Your task to perform on an android device: turn on javascript in the chrome app Image 0: 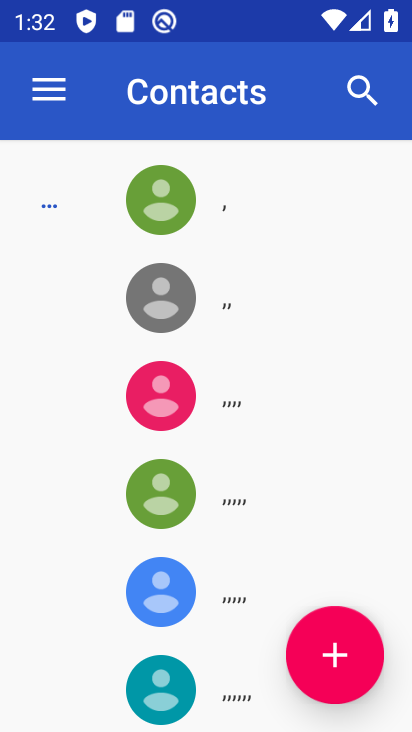
Step 0: press home button
Your task to perform on an android device: turn on javascript in the chrome app Image 1: 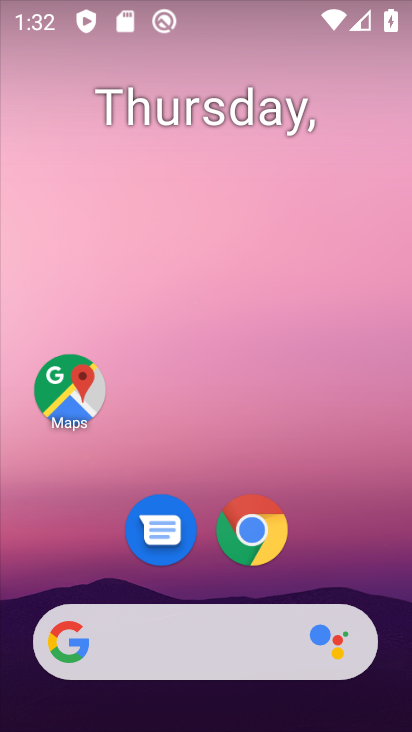
Step 1: click (256, 540)
Your task to perform on an android device: turn on javascript in the chrome app Image 2: 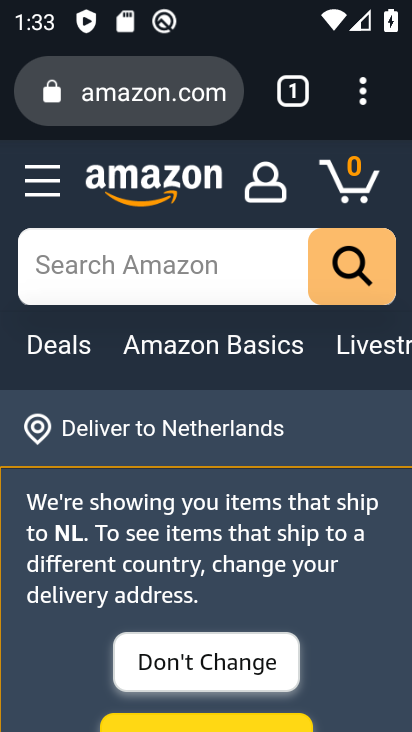
Step 2: click (364, 104)
Your task to perform on an android device: turn on javascript in the chrome app Image 3: 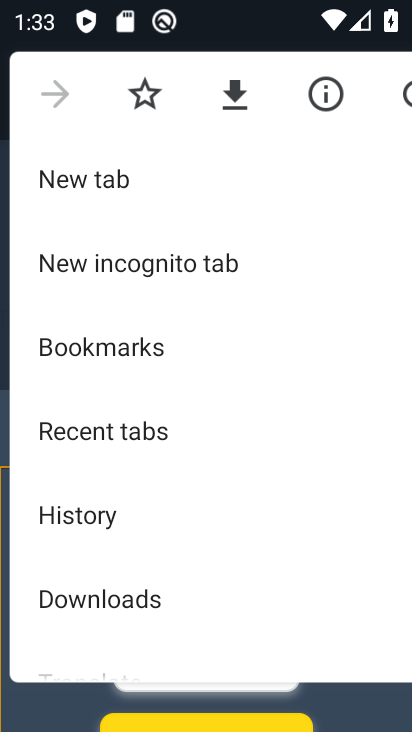
Step 3: drag from (222, 607) to (203, 11)
Your task to perform on an android device: turn on javascript in the chrome app Image 4: 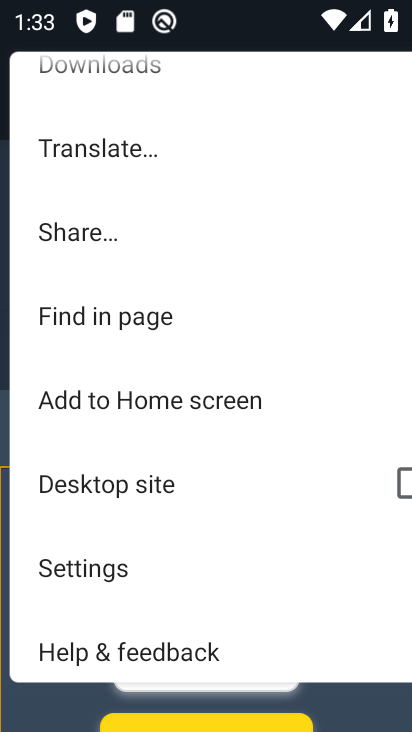
Step 4: click (109, 578)
Your task to perform on an android device: turn on javascript in the chrome app Image 5: 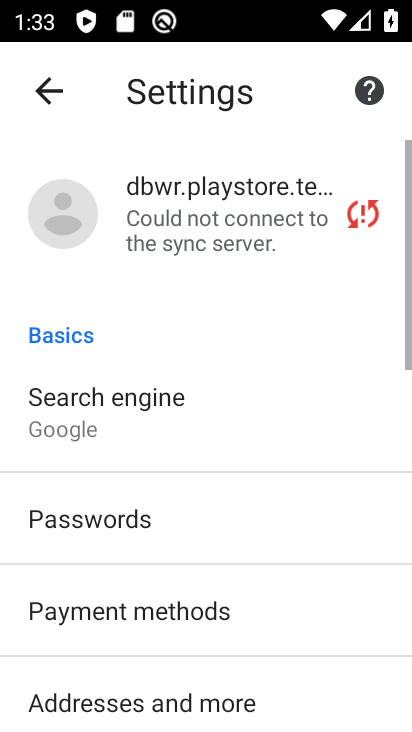
Step 5: drag from (213, 612) to (192, 8)
Your task to perform on an android device: turn on javascript in the chrome app Image 6: 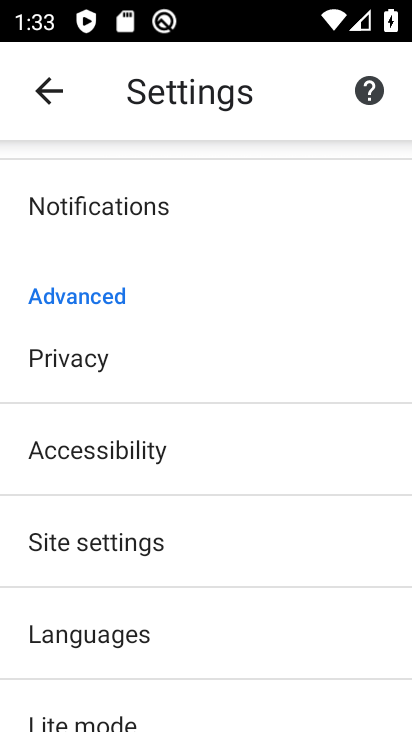
Step 6: click (115, 540)
Your task to perform on an android device: turn on javascript in the chrome app Image 7: 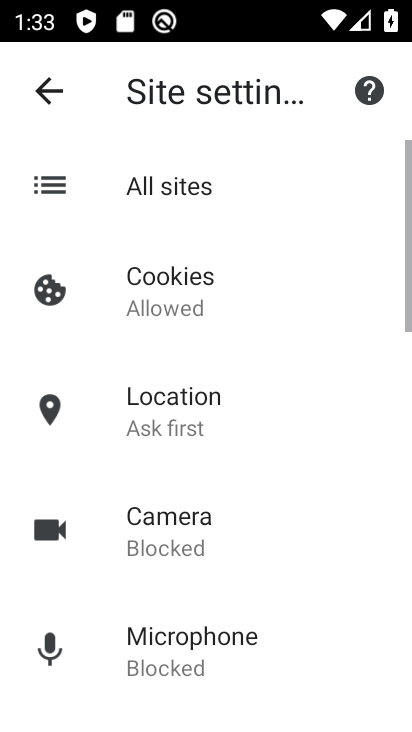
Step 7: drag from (296, 639) to (306, 14)
Your task to perform on an android device: turn on javascript in the chrome app Image 8: 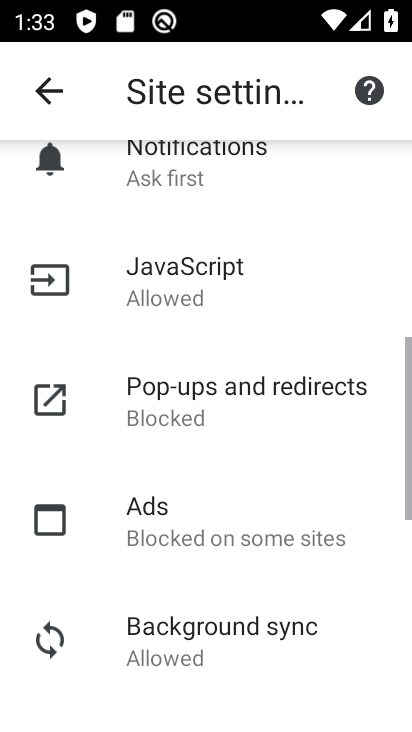
Step 8: click (187, 292)
Your task to perform on an android device: turn on javascript in the chrome app Image 9: 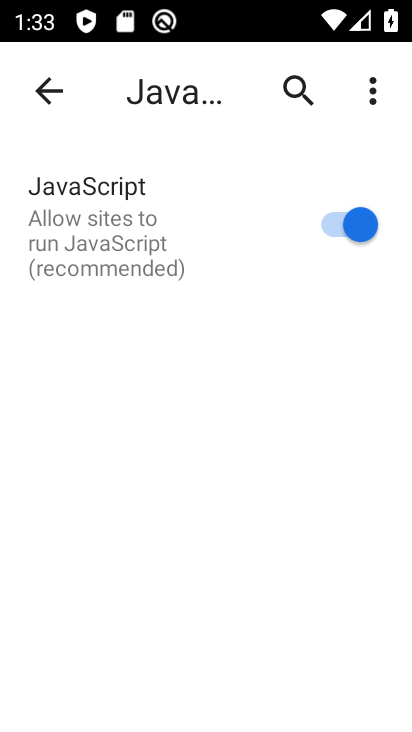
Step 9: task complete